Your task to perform on an android device: turn on notifications settings in the gmail app Image 0: 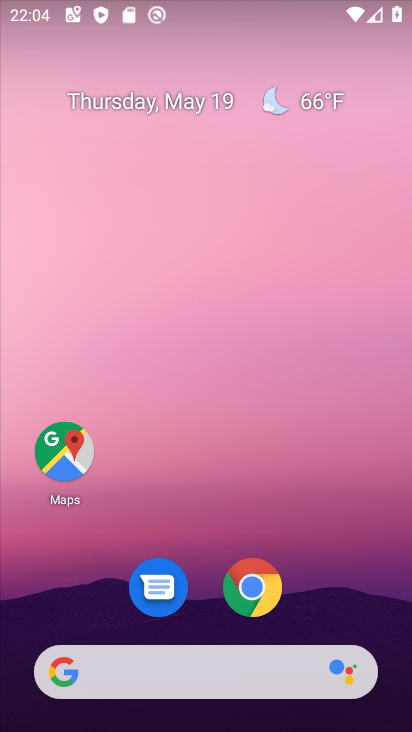
Step 0: drag from (235, 715) to (216, 260)
Your task to perform on an android device: turn on notifications settings in the gmail app Image 1: 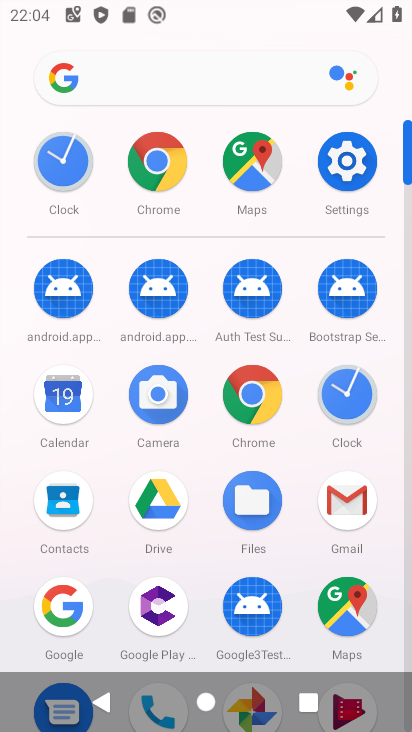
Step 1: click (372, 494)
Your task to perform on an android device: turn on notifications settings in the gmail app Image 2: 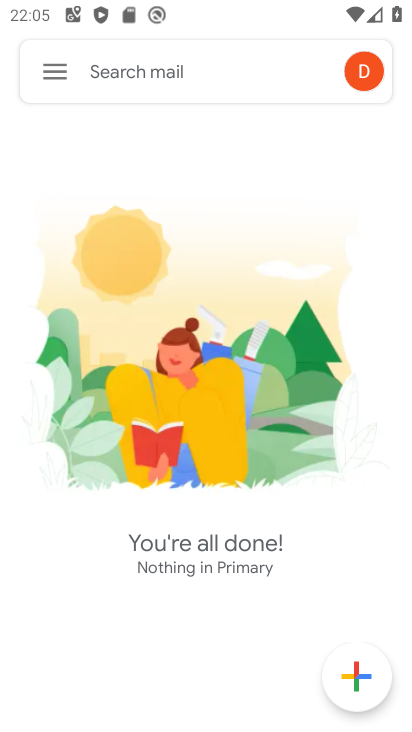
Step 2: click (46, 86)
Your task to perform on an android device: turn on notifications settings in the gmail app Image 3: 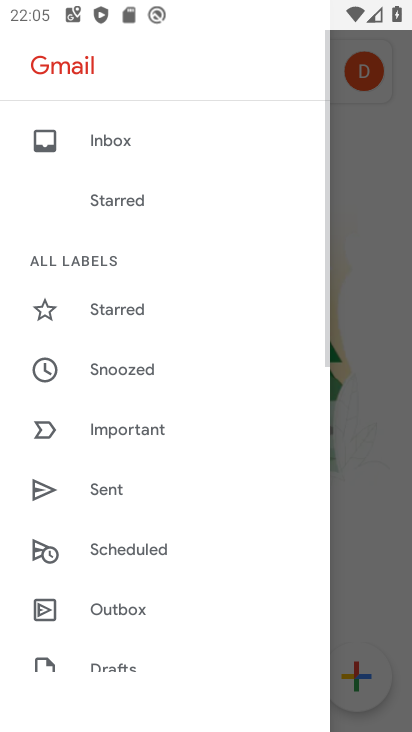
Step 3: drag from (159, 621) to (232, 439)
Your task to perform on an android device: turn on notifications settings in the gmail app Image 4: 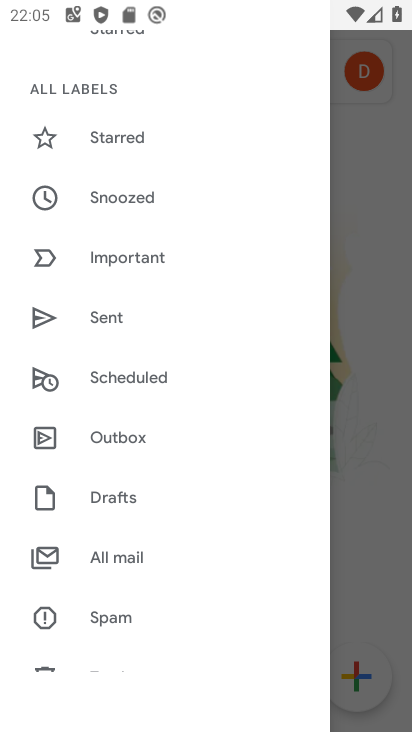
Step 4: drag from (133, 587) to (143, 475)
Your task to perform on an android device: turn on notifications settings in the gmail app Image 5: 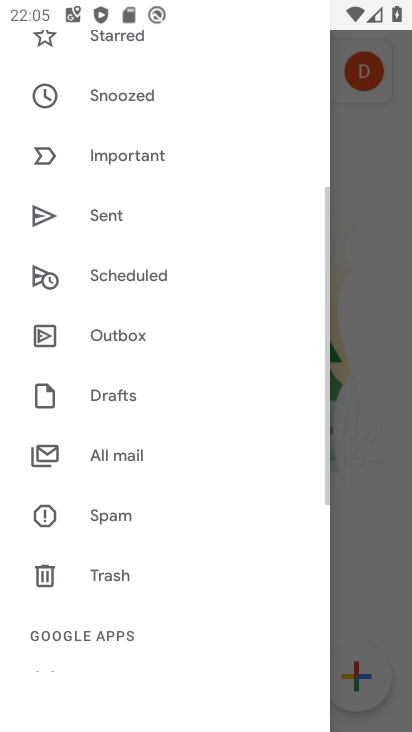
Step 5: drag from (113, 589) to (139, 424)
Your task to perform on an android device: turn on notifications settings in the gmail app Image 6: 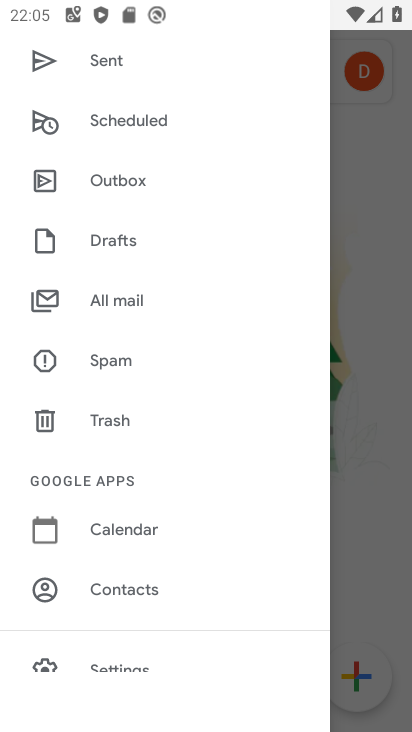
Step 6: drag from (127, 582) to (129, 446)
Your task to perform on an android device: turn on notifications settings in the gmail app Image 7: 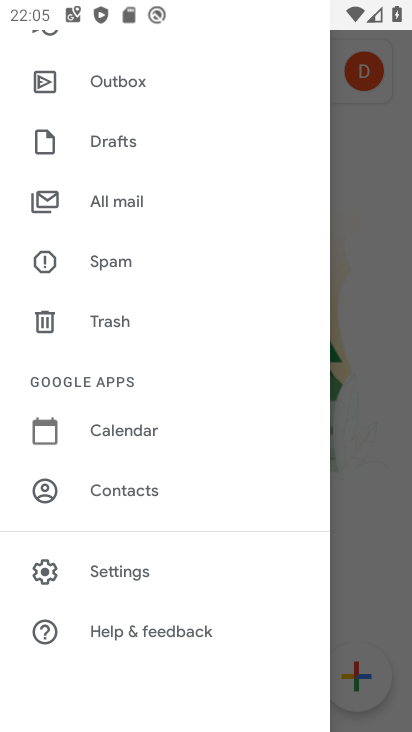
Step 7: click (113, 576)
Your task to perform on an android device: turn on notifications settings in the gmail app Image 8: 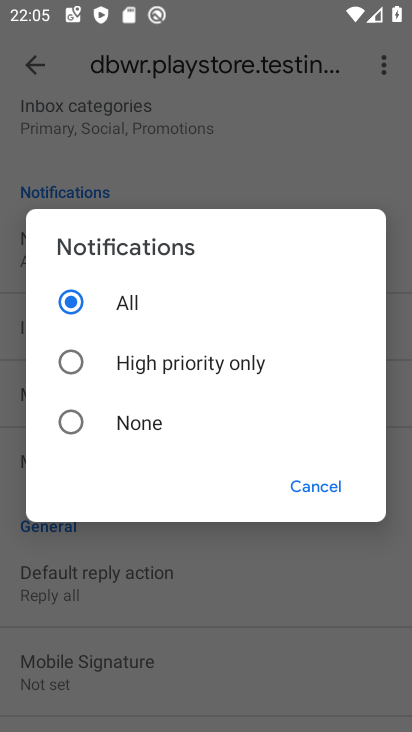
Step 8: task complete